Your task to perform on an android device: Open settings on Google Maps Image 0: 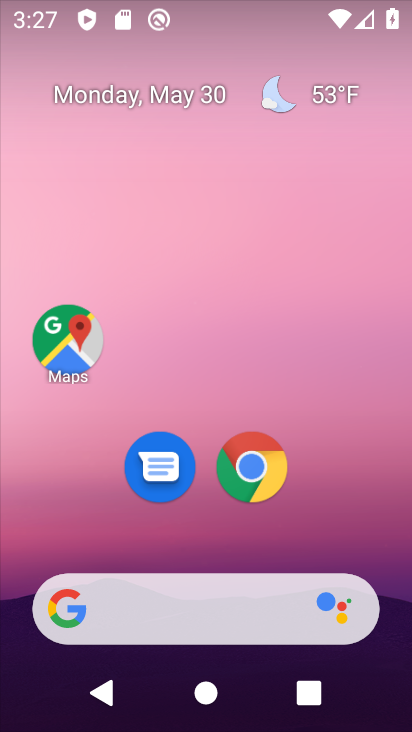
Step 0: drag from (106, 568) to (196, 107)
Your task to perform on an android device: Open settings on Google Maps Image 1: 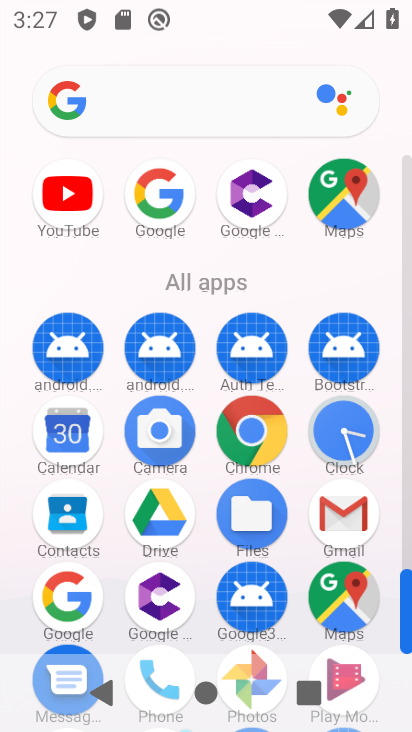
Step 1: drag from (208, 563) to (252, 298)
Your task to perform on an android device: Open settings on Google Maps Image 2: 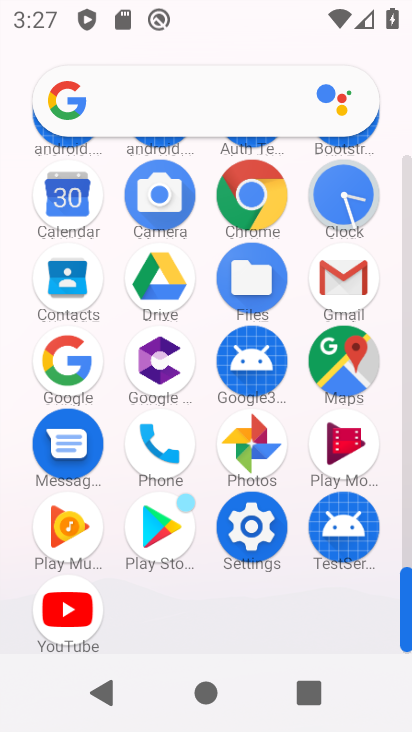
Step 2: drag from (106, 288) to (143, 603)
Your task to perform on an android device: Open settings on Google Maps Image 3: 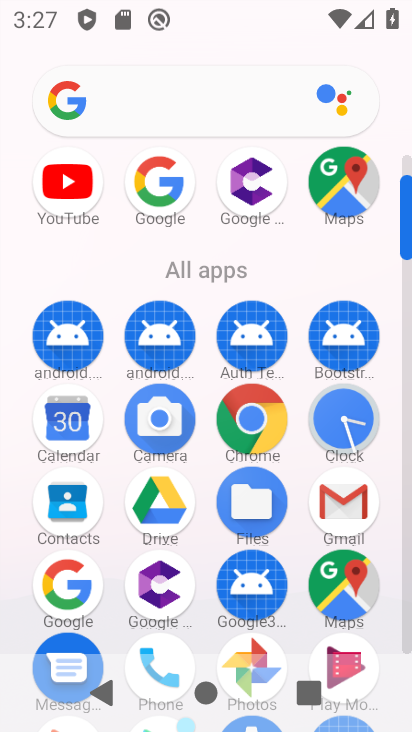
Step 3: click (369, 581)
Your task to perform on an android device: Open settings on Google Maps Image 4: 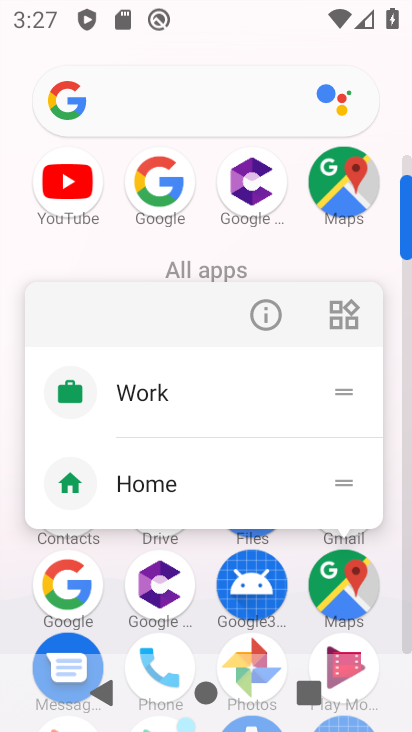
Step 4: click (343, 584)
Your task to perform on an android device: Open settings on Google Maps Image 5: 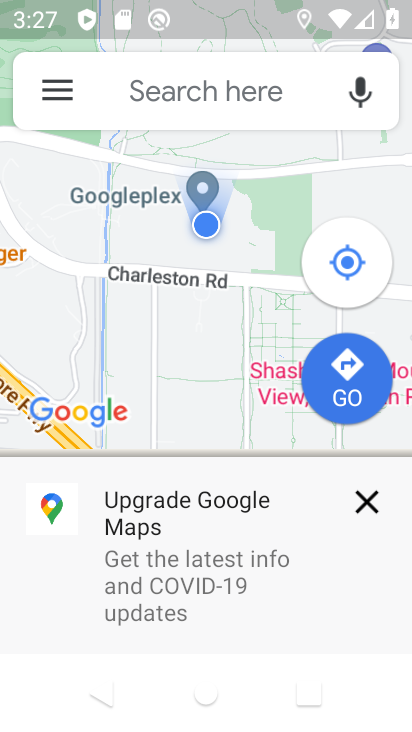
Step 5: click (370, 525)
Your task to perform on an android device: Open settings on Google Maps Image 6: 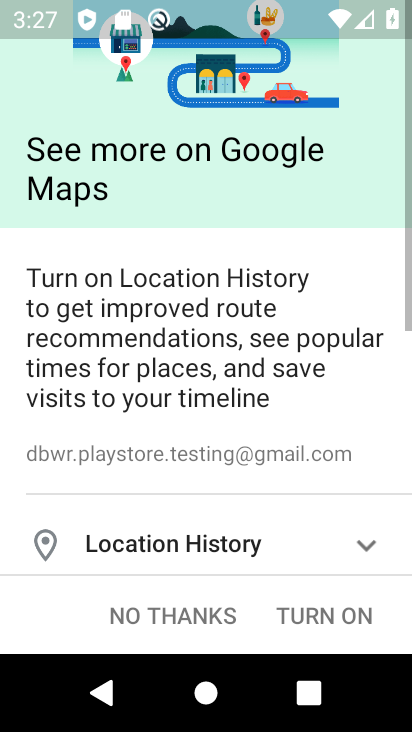
Step 6: click (182, 615)
Your task to perform on an android device: Open settings on Google Maps Image 7: 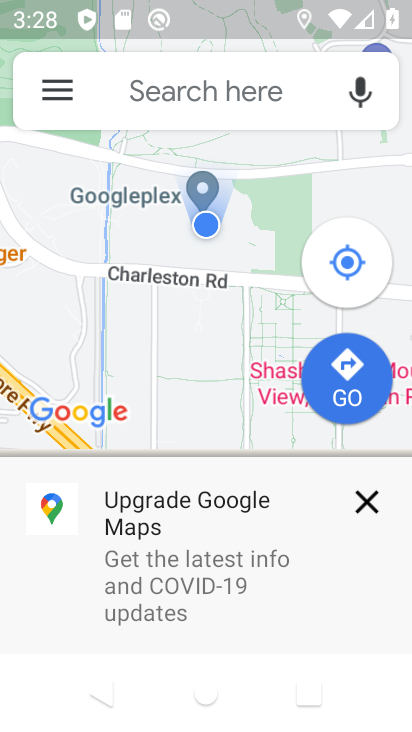
Step 7: click (364, 518)
Your task to perform on an android device: Open settings on Google Maps Image 8: 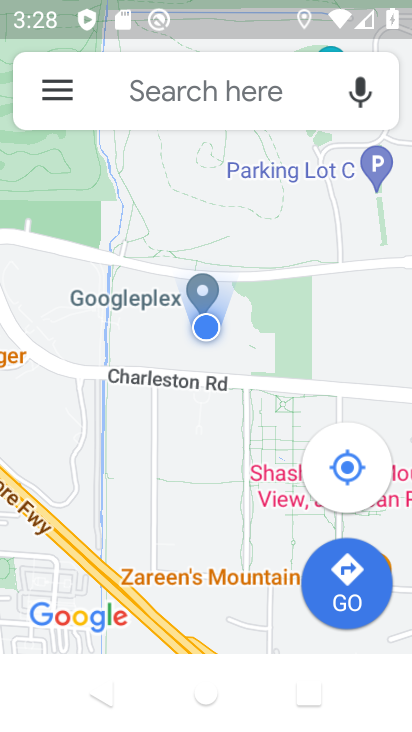
Step 8: click (86, 103)
Your task to perform on an android device: Open settings on Google Maps Image 9: 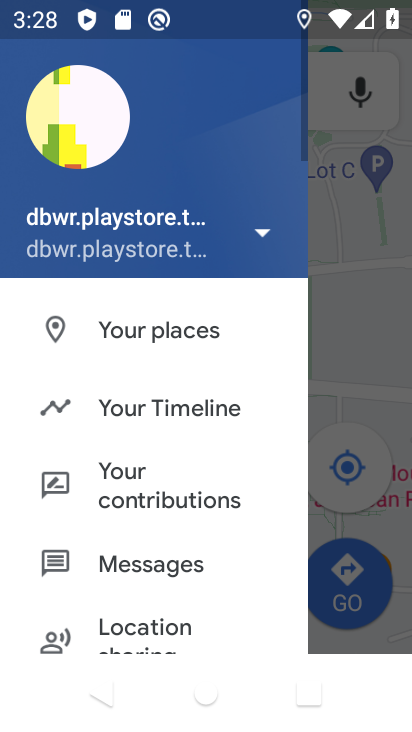
Step 9: drag from (183, 644) to (271, 202)
Your task to perform on an android device: Open settings on Google Maps Image 10: 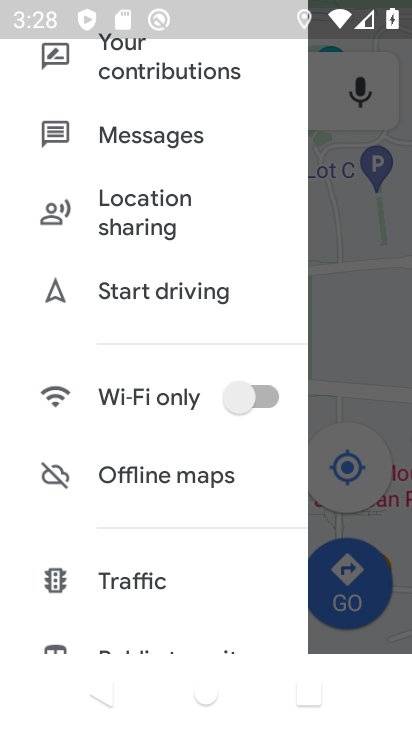
Step 10: drag from (145, 585) to (226, 235)
Your task to perform on an android device: Open settings on Google Maps Image 11: 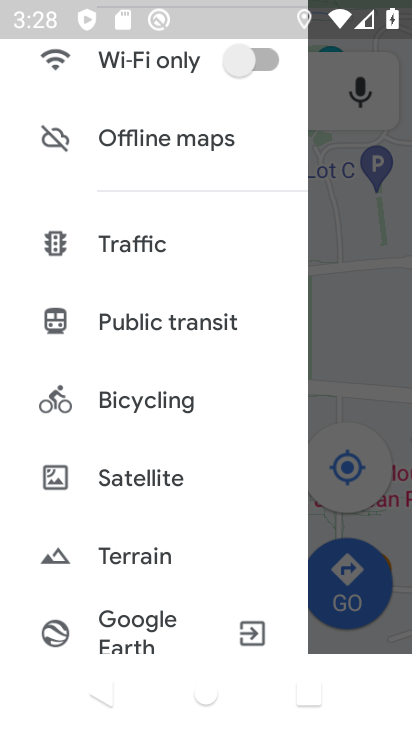
Step 11: drag from (150, 629) to (229, 200)
Your task to perform on an android device: Open settings on Google Maps Image 12: 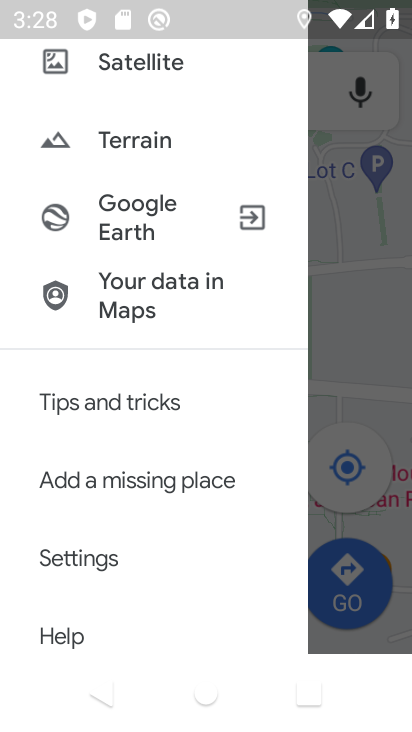
Step 12: click (134, 581)
Your task to perform on an android device: Open settings on Google Maps Image 13: 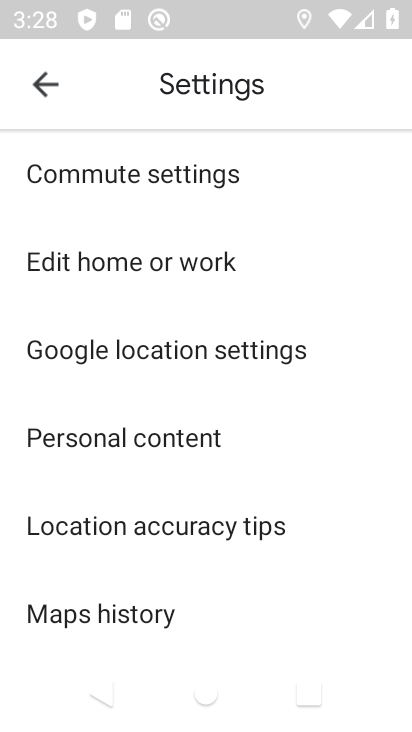
Step 13: task complete